Your task to perform on an android device: star an email in the gmail app Image 0: 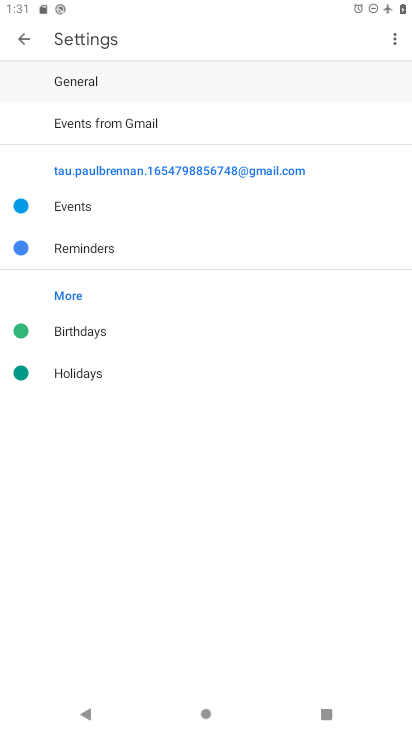
Step 0: press home button
Your task to perform on an android device: star an email in the gmail app Image 1: 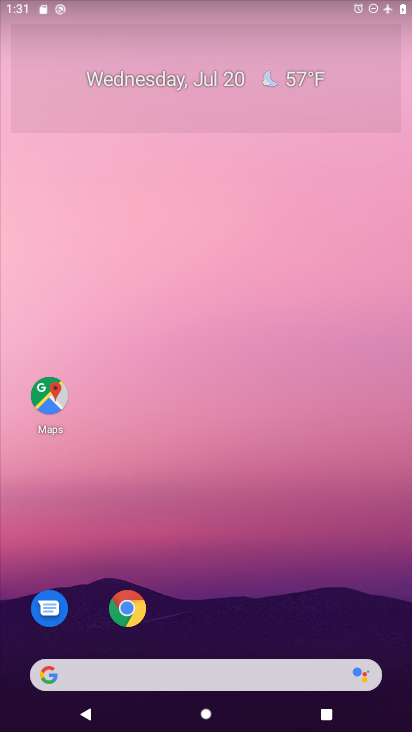
Step 1: drag from (160, 707) to (294, 103)
Your task to perform on an android device: star an email in the gmail app Image 2: 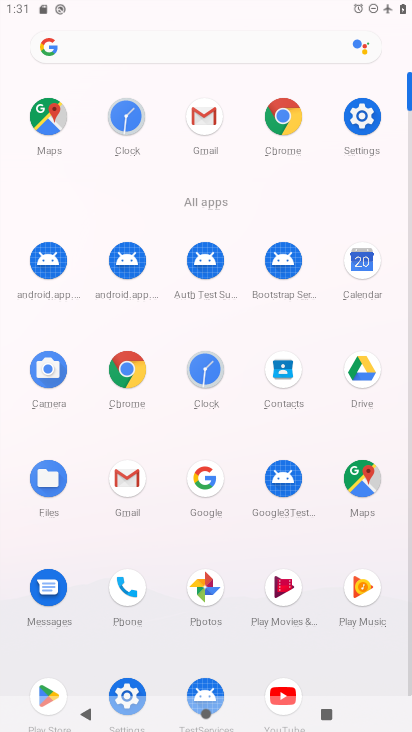
Step 2: click (187, 119)
Your task to perform on an android device: star an email in the gmail app Image 3: 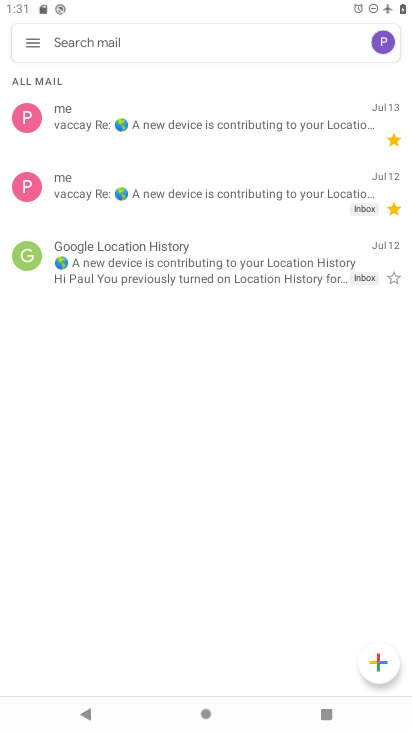
Step 3: click (394, 273)
Your task to perform on an android device: star an email in the gmail app Image 4: 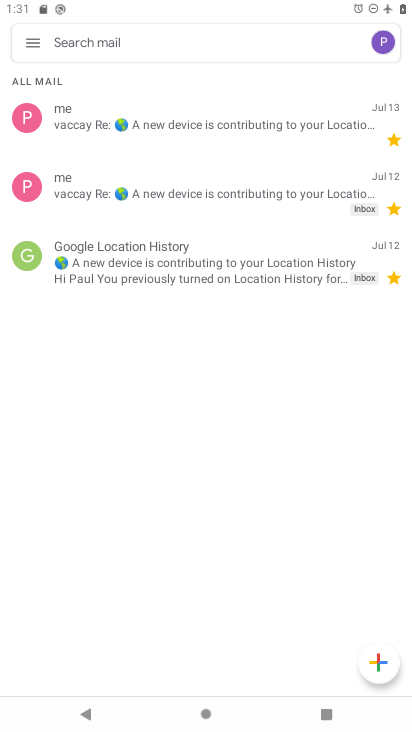
Step 4: task complete